Your task to perform on an android device: Do I have any events tomorrow? Image 0: 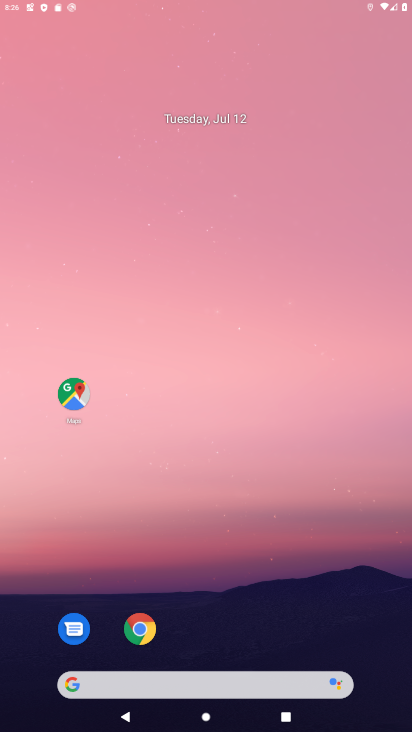
Step 0: drag from (268, 625) to (310, 152)
Your task to perform on an android device: Do I have any events tomorrow? Image 1: 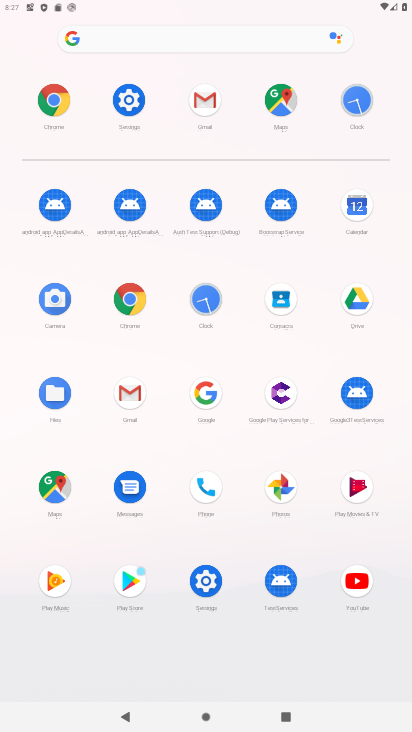
Step 1: click (355, 208)
Your task to perform on an android device: Do I have any events tomorrow? Image 2: 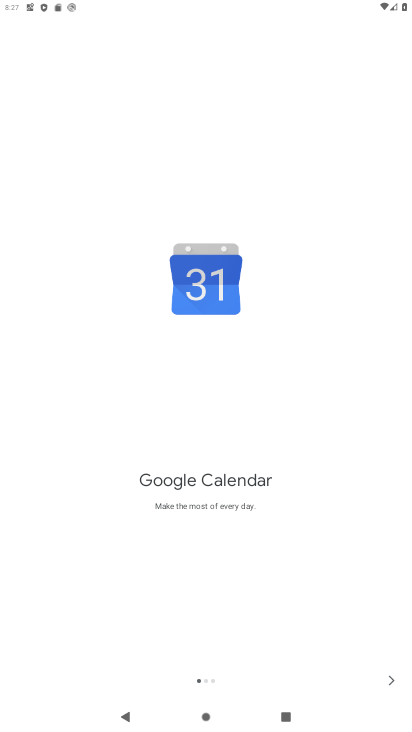
Step 2: click (382, 682)
Your task to perform on an android device: Do I have any events tomorrow? Image 3: 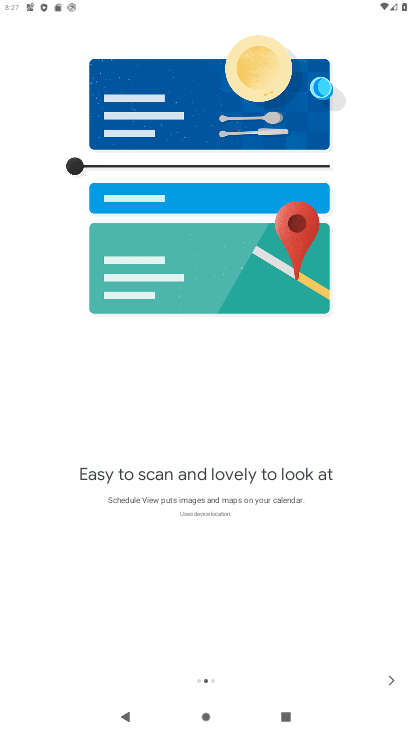
Step 3: click (377, 677)
Your task to perform on an android device: Do I have any events tomorrow? Image 4: 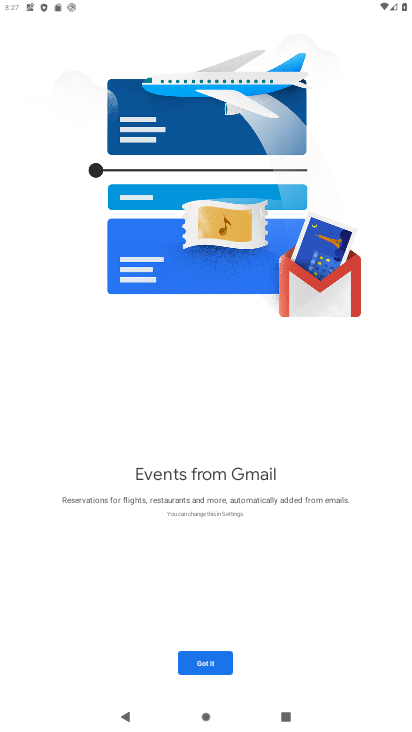
Step 4: click (212, 663)
Your task to perform on an android device: Do I have any events tomorrow? Image 5: 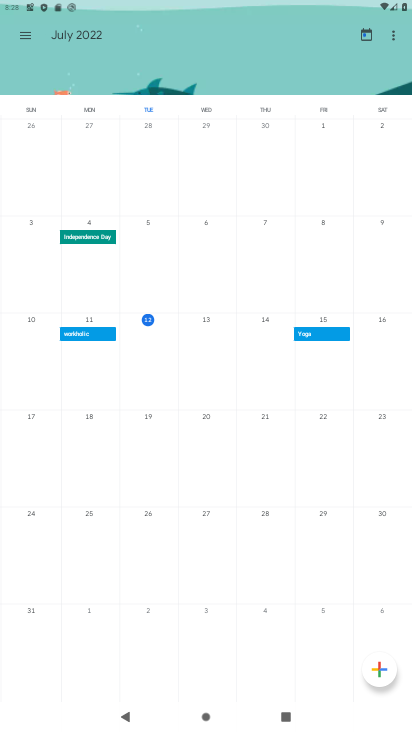
Step 5: click (257, 339)
Your task to perform on an android device: Do I have any events tomorrow? Image 6: 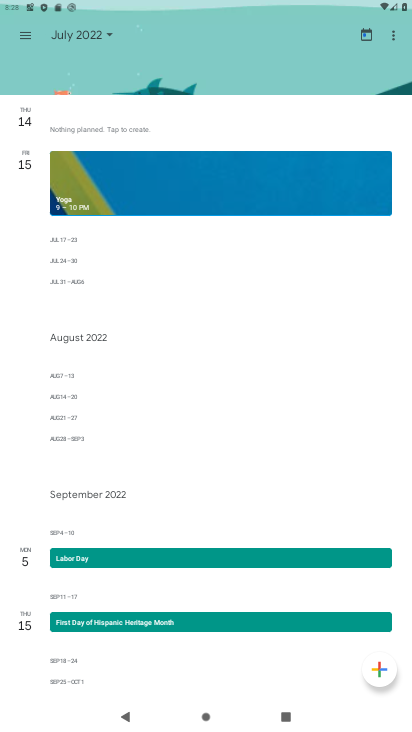
Step 6: task complete